Your task to perform on an android device: open a bookmark in the chrome app Image 0: 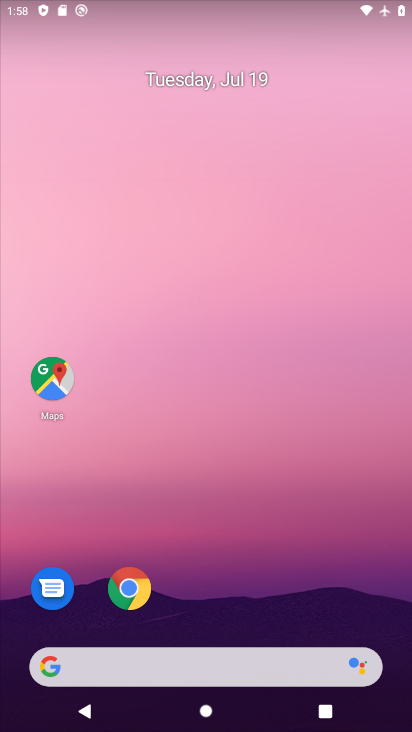
Step 0: press home button
Your task to perform on an android device: open a bookmark in the chrome app Image 1: 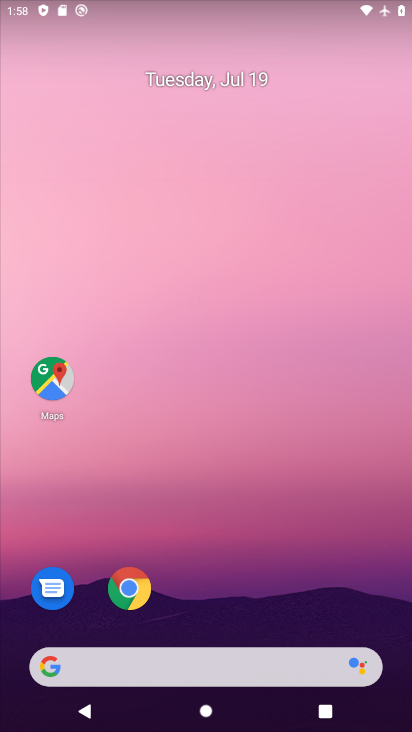
Step 1: drag from (209, 624) to (218, 143)
Your task to perform on an android device: open a bookmark in the chrome app Image 2: 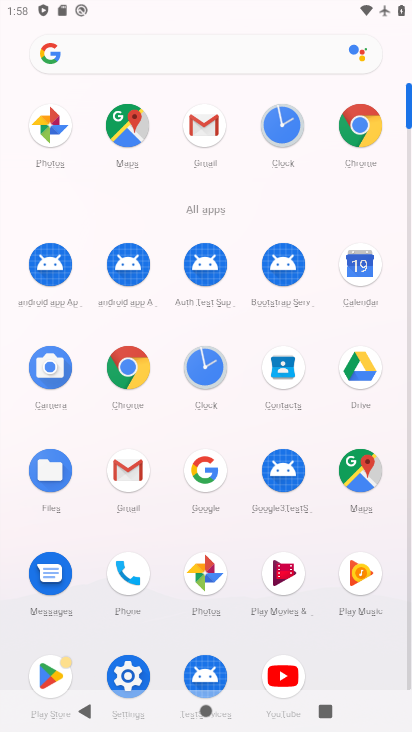
Step 2: click (364, 125)
Your task to perform on an android device: open a bookmark in the chrome app Image 3: 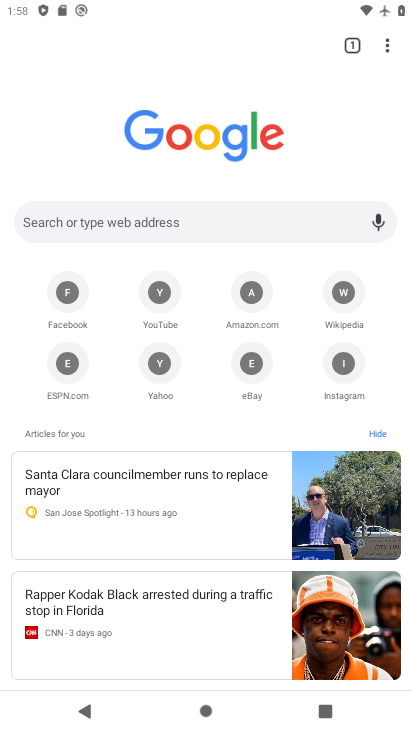
Step 3: drag from (391, 44) to (248, 166)
Your task to perform on an android device: open a bookmark in the chrome app Image 4: 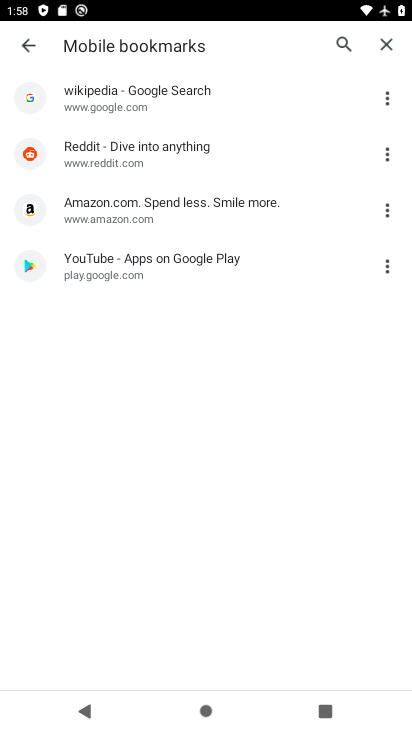
Step 4: click (131, 149)
Your task to perform on an android device: open a bookmark in the chrome app Image 5: 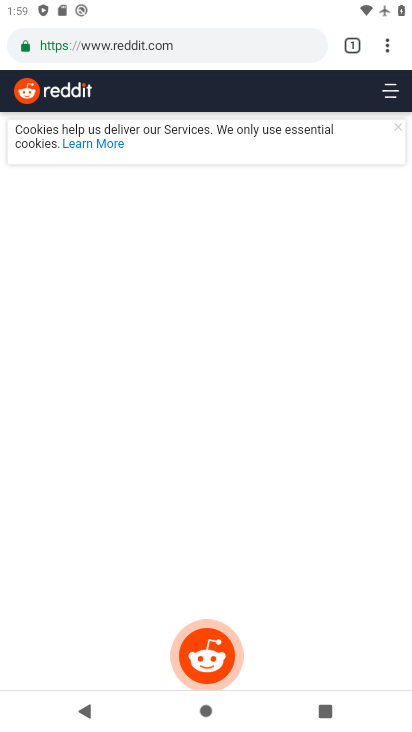
Step 5: task complete